Your task to perform on an android device: Show me popular videos on Youtube Image 0: 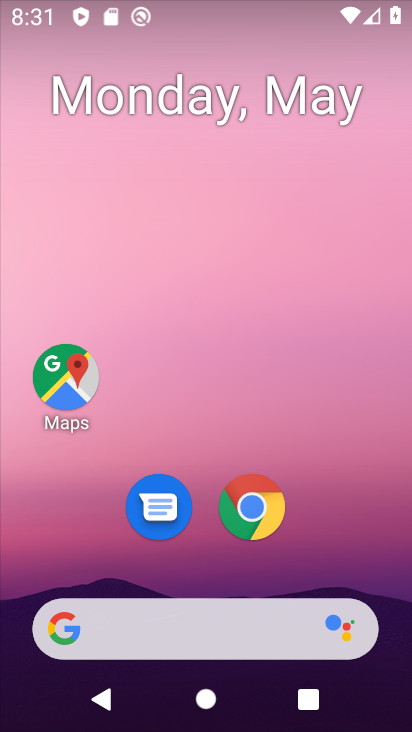
Step 0: drag from (216, 563) to (279, 115)
Your task to perform on an android device: Show me popular videos on Youtube Image 1: 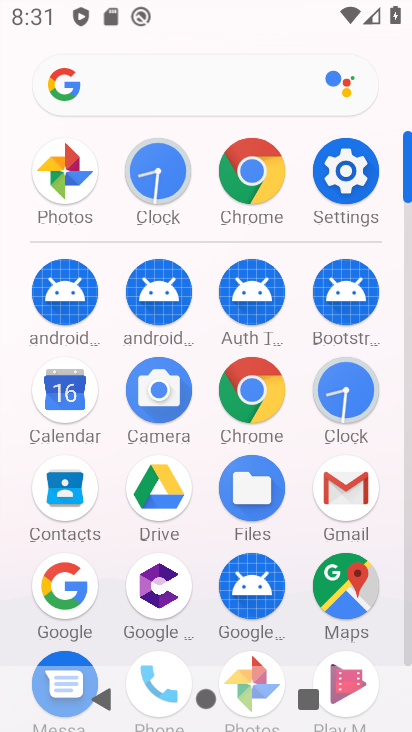
Step 1: drag from (211, 600) to (271, 205)
Your task to perform on an android device: Show me popular videos on Youtube Image 2: 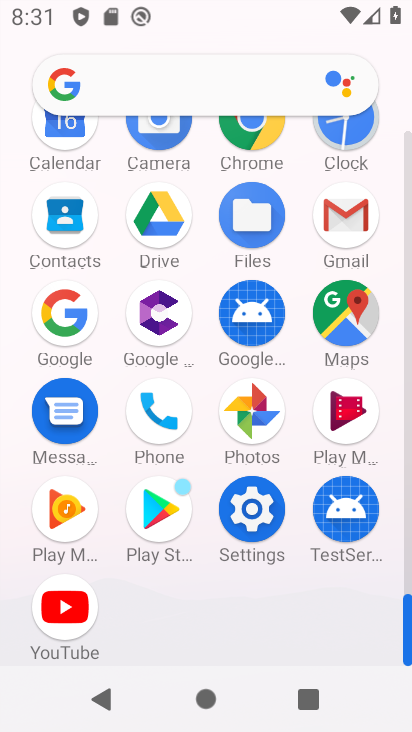
Step 2: click (86, 607)
Your task to perform on an android device: Show me popular videos on Youtube Image 3: 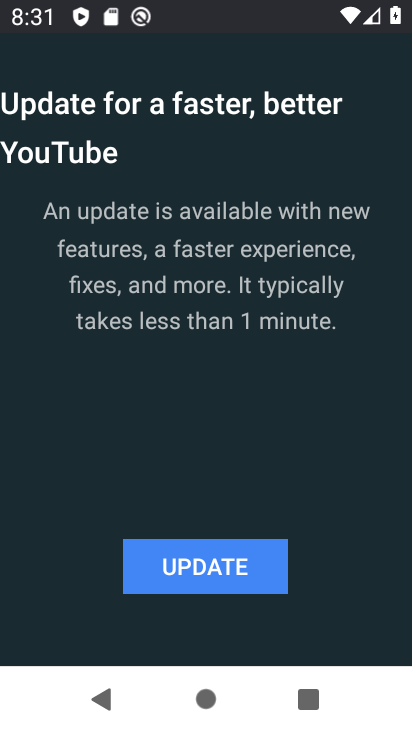
Step 3: click (197, 576)
Your task to perform on an android device: Show me popular videos on Youtube Image 4: 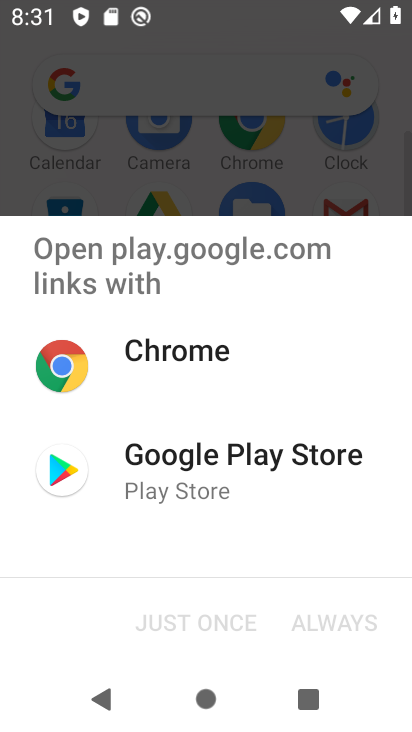
Step 4: click (180, 477)
Your task to perform on an android device: Show me popular videos on Youtube Image 5: 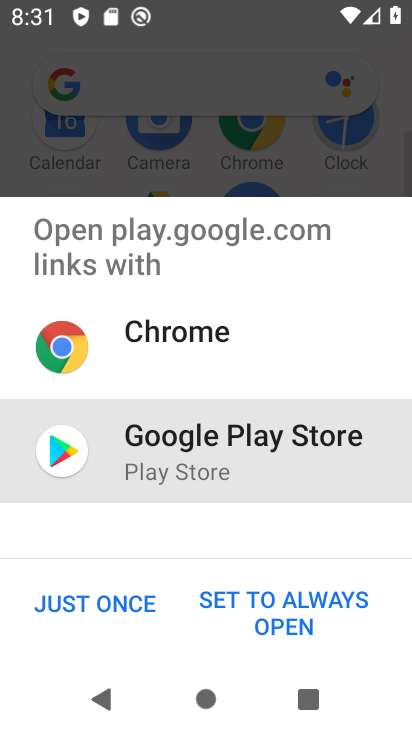
Step 5: click (105, 598)
Your task to perform on an android device: Show me popular videos on Youtube Image 6: 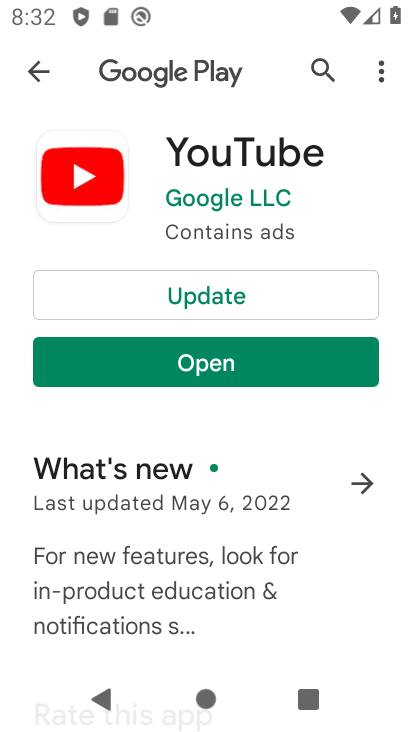
Step 6: click (253, 288)
Your task to perform on an android device: Show me popular videos on Youtube Image 7: 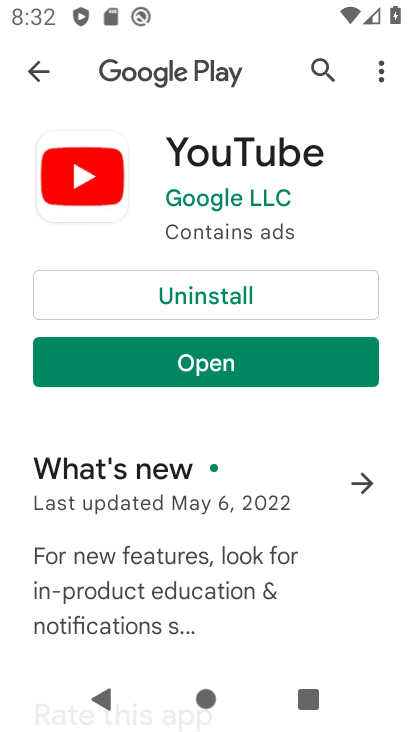
Step 7: click (229, 369)
Your task to perform on an android device: Show me popular videos on Youtube Image 8: 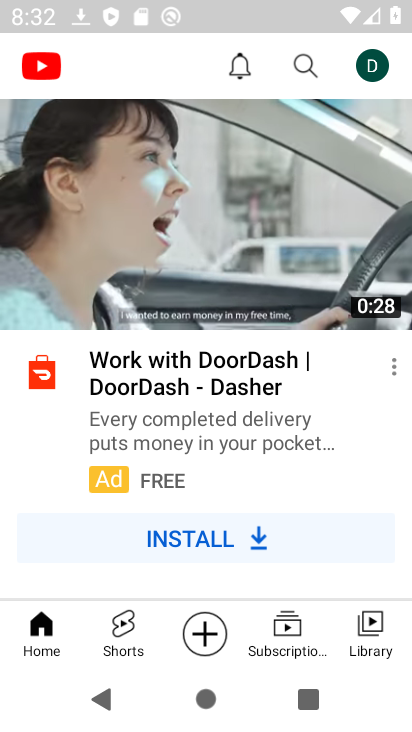
Step 8: drag from (148, 207) to (88, 611)
Your task to perform on an android device: Show me popular videos on Youtube Image 9: 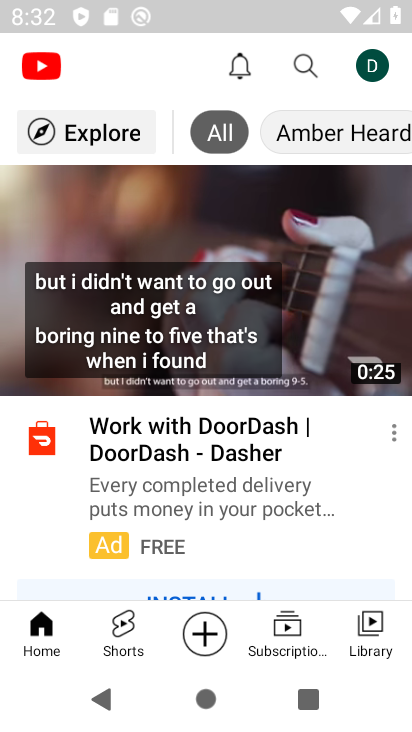
Step 9: click (79, 136)
Your task to perform on an android device: Show me popular videos on Youtube Image 10: 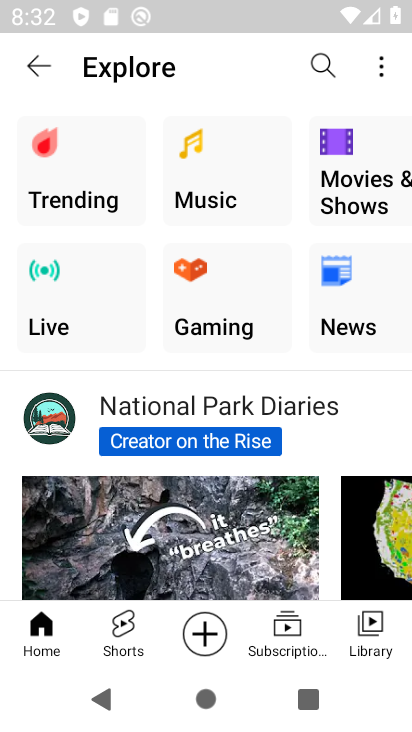
Step 10: click (94, 144)
Your task to perform on an android device: Show me popular videos on Youtube Image 11: 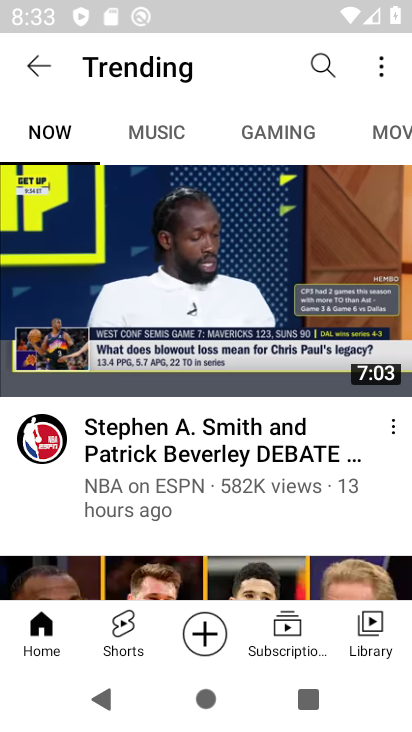
Step 11: task complete